Your task to perform on an android device: delete a single message in the gmail app Image 0: 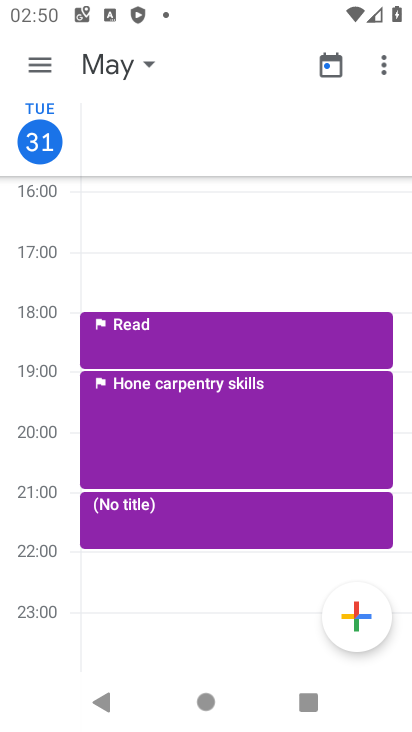
Step 0: press home button
Your task to perform on an android device: delete a single message in the gmail app Image 1: 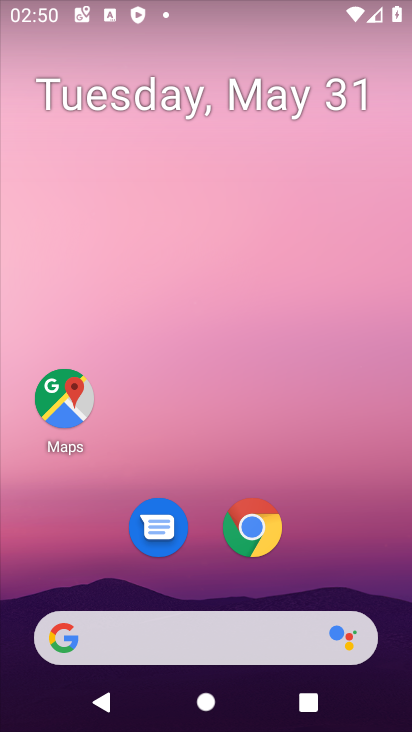
Step 1: drag from (350, 552) to (313, 4)
Your task to perform on an android device: delete a single message in the gmail app Image 2: 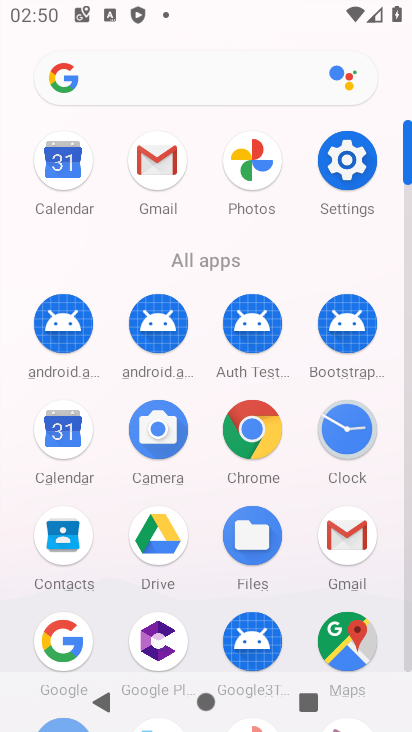
Step 2: click (349, 541)
Your task to perform on an android device: delete a single message in the gmail app Image 3: 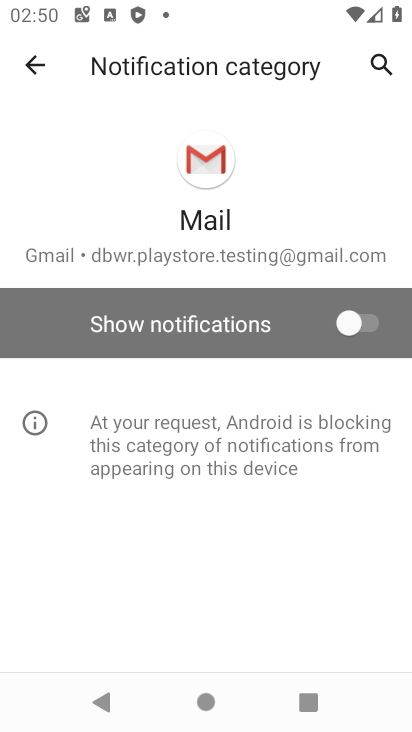
Step 3: press back button
Your task to perform on an android device: delete a single message in the gmail app Image 4: 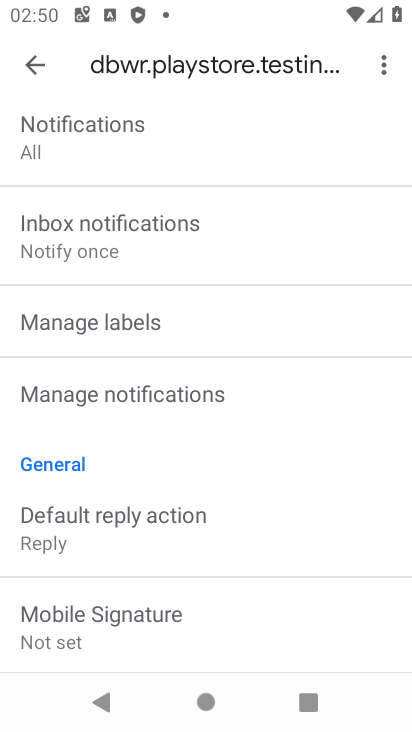
Step 4: press back button
Your task to perform on an android device: delete a single message in the gmail app Image 5: 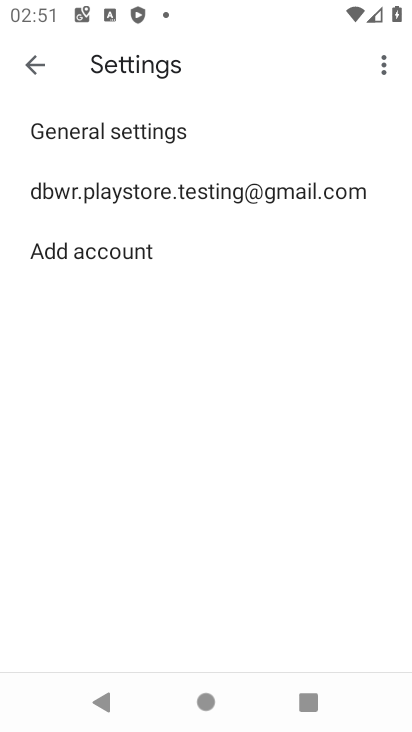
Step 5: press back button
Your task to perform on an android device: delete a single message in the gmail app Image 6: 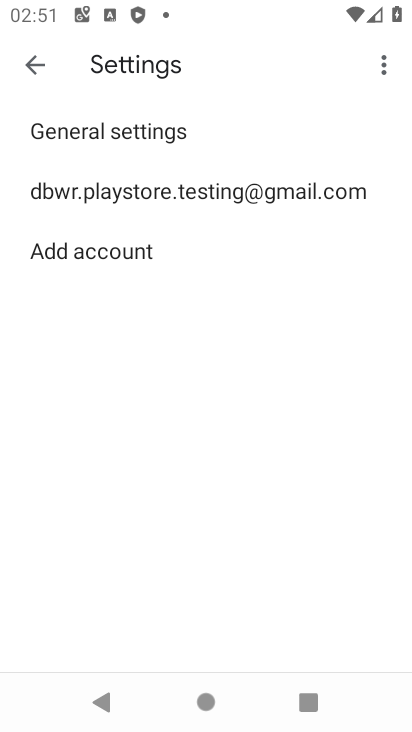
Step 6: press back button
Your task to perform on an android device: delete a single message in the gmail app Image 7: 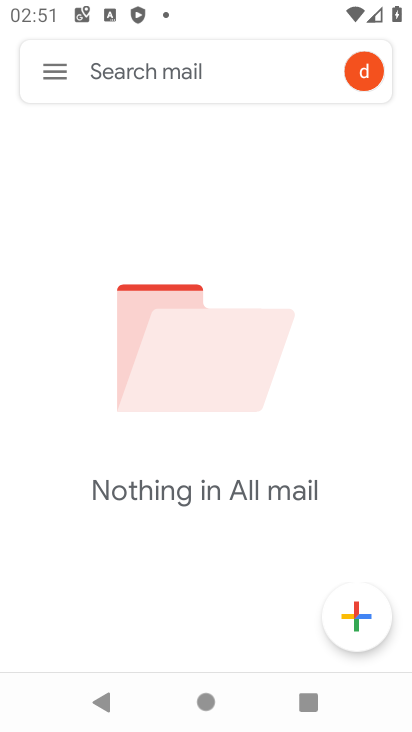
Step 7: click (60, 73)
Your task to perform on an android device: delete a single message in the gmail app Image 8: 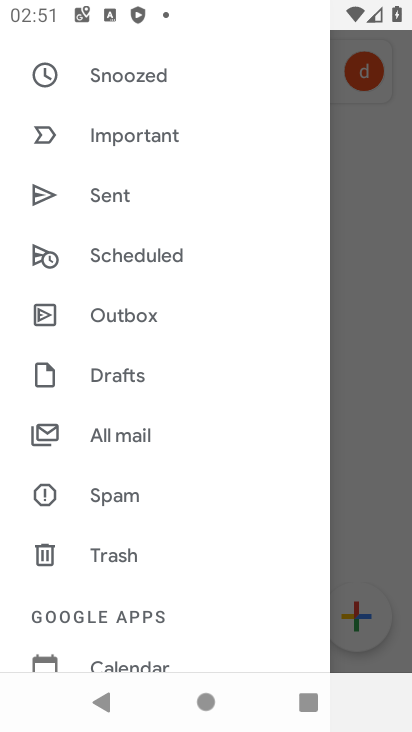
Step 8: click (143, 436)
Your task to perform on an android device: delete a single message in the gmail app Image 9: 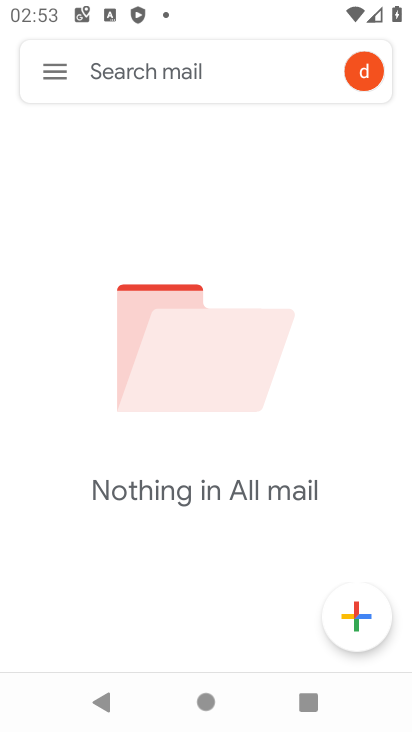
Step 9: task complete